Your task to perform on an android device: When is my next meeting? Image 0: 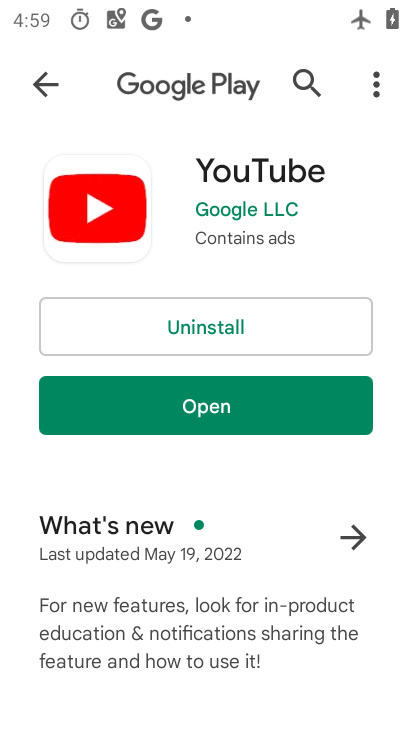
Step 0: press home button
Your task to perform on an android device: When is my next meeting? Image 1: 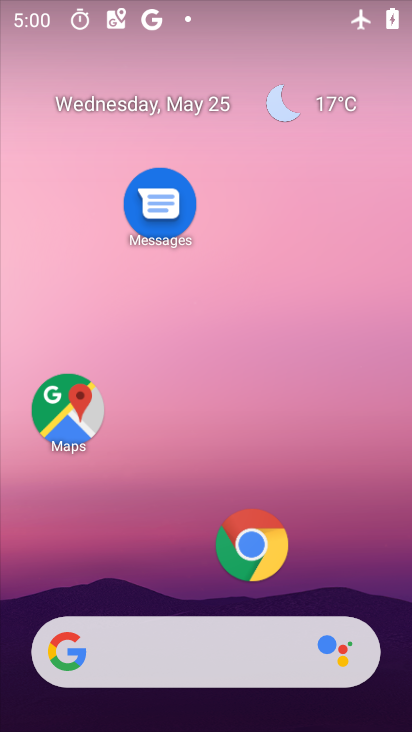
Step 1: click (136, 104)
Your task to perform on an android device: When is my next meeting? Image 2: 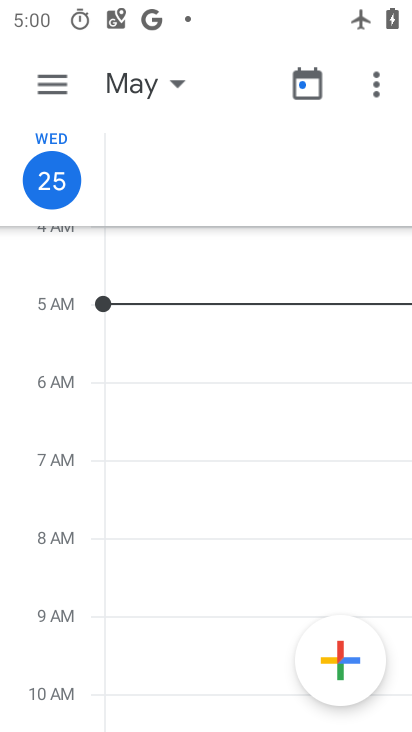
Step 2: click (45, 76)
Your task to perform on an android device: When is my next meeting? Image 3: 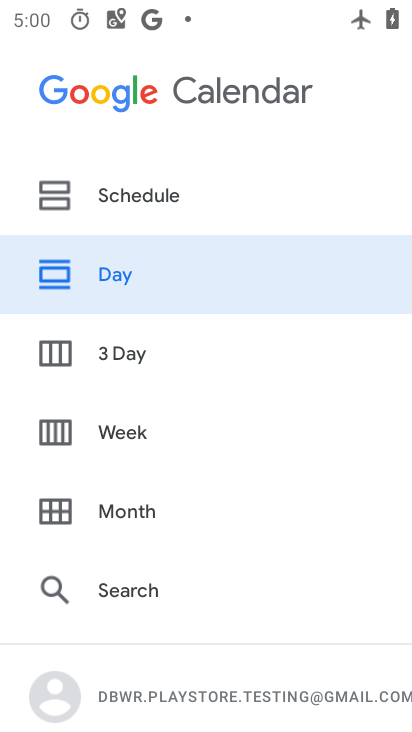
Step 3: click (112, 188)
Your task to perform on an android device: When is my next meeting? Image 4: 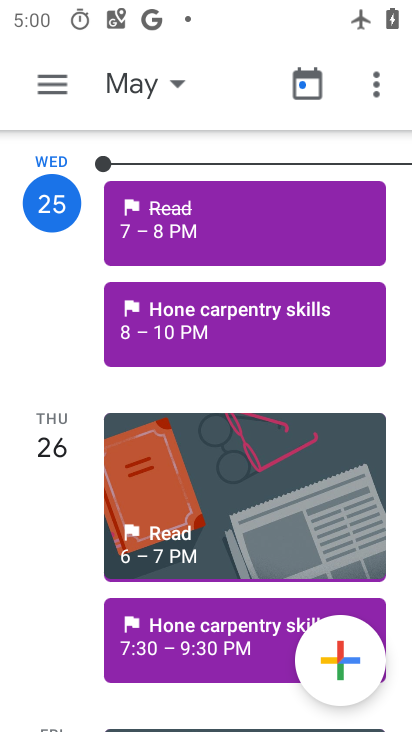
Step 4: click (200, 234)
Your task to perform on an android device: When is my next meeting? Image 5: 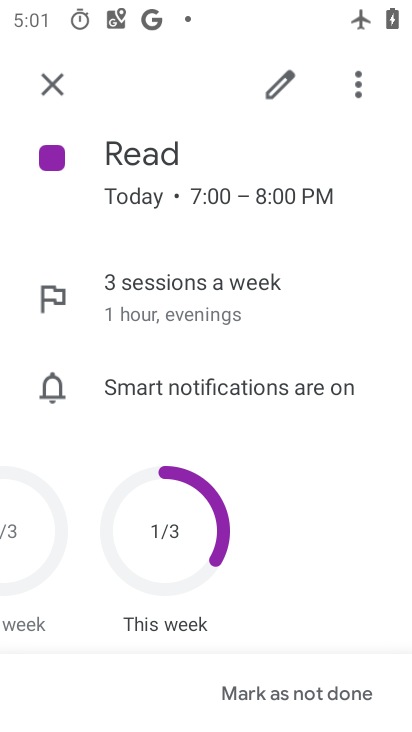
Step 5: task complete